Your task to perform on an android device: Search for seafood restaurants on Google Maps Image 0: 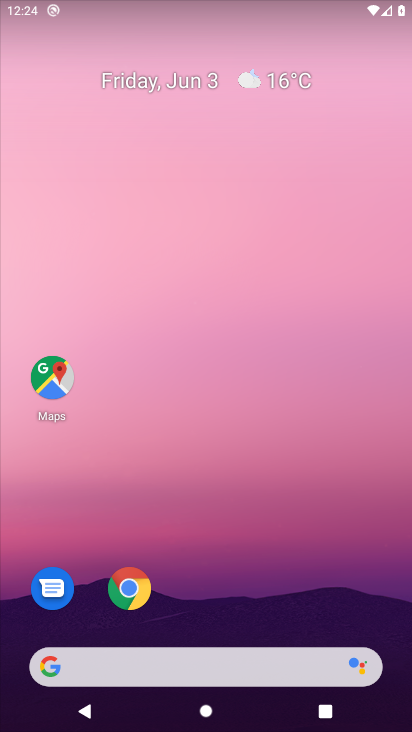
Step 0: drag from (190, 629) to (369, 181)
Your task to perform on an android device: Search for seafood restaurants on Google Maps Image 1: 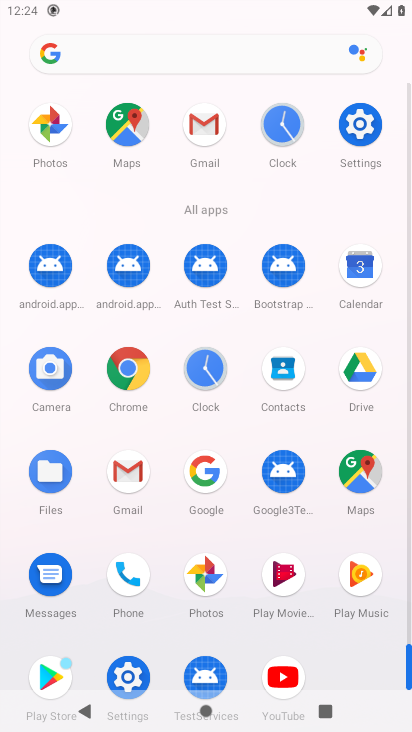
Step 1: click (354, 463)
Your task to perform on an android device: Search for seafood restaurants on Google Maps Image 2: 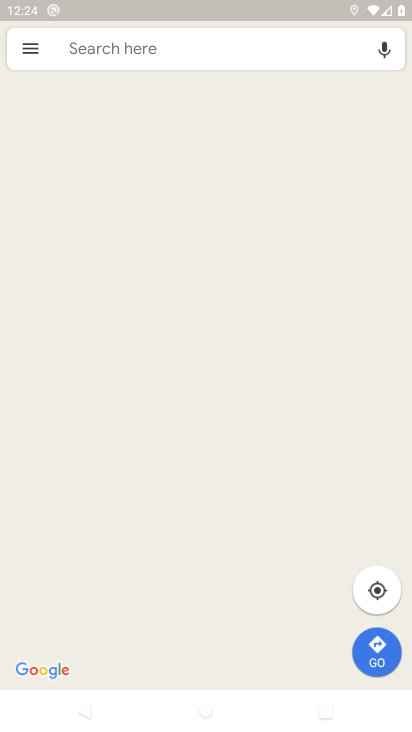
Step 2: click (130, 54)
Your task to perform on an android device: Search for seafood restaurants on Google Maps Image 3: 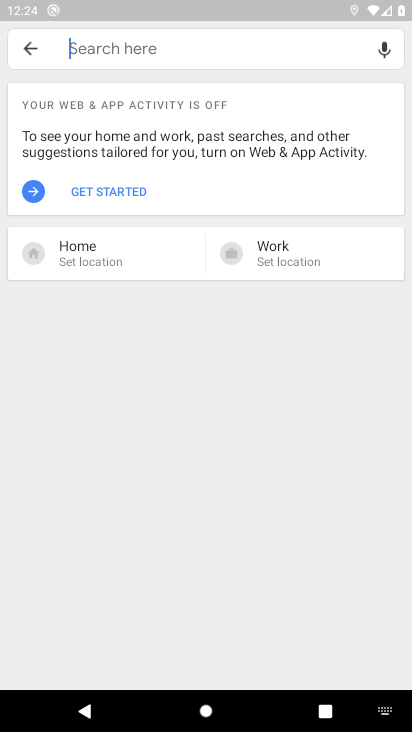
Step 3: click (35, 49)
Your task to perform on an android device: Search for seafood restaurants on Google Maps Image 4: 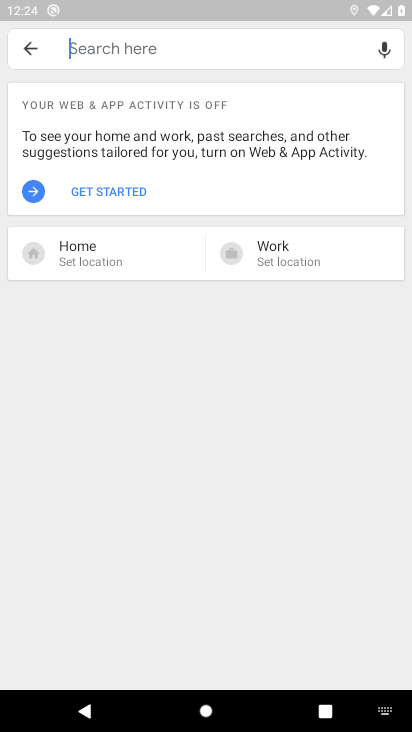
Step 4: click (188, 45)
Your task to perform on an android device: Search for seafood restaurants on Google Maps Image 5: 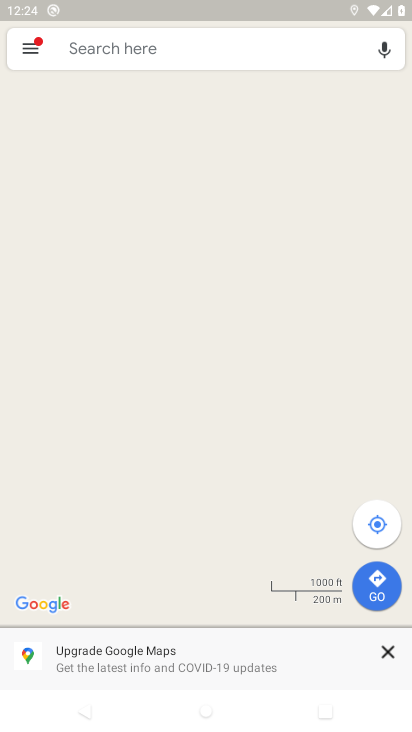
Step 5: click (118, 47)
Your task to perform on an android device: Search for seafood restaurants on Google Maps Image 6: 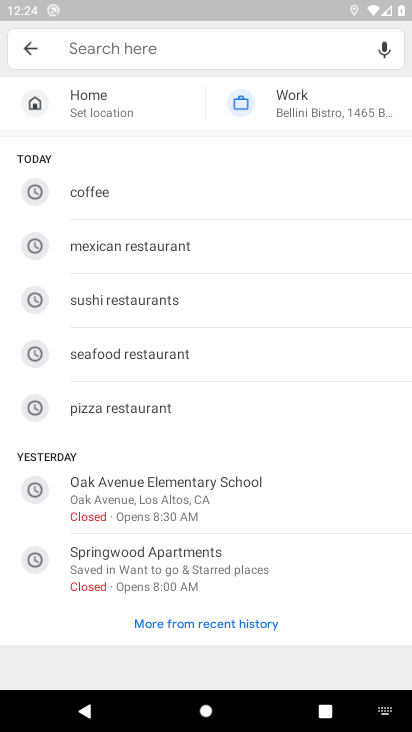
Step 6: click (166, 337)
Your task to perform on an android device: Search for seafood restaurants on Google Maps Image 7: 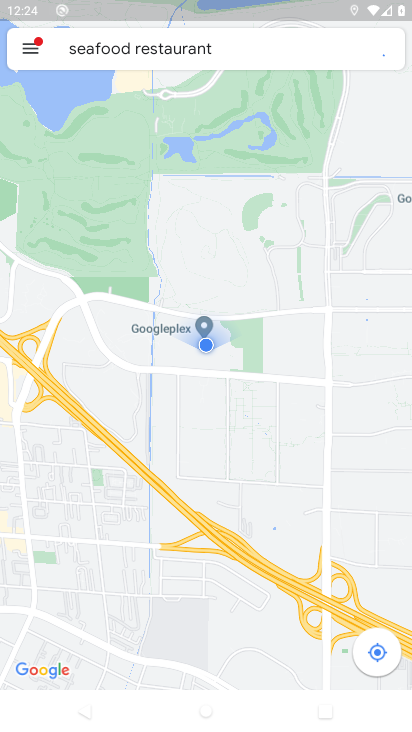
Step 7: click (303, 48)
Your task to perform on an android device: Search for seafood restaurants on Google Maps Image 8: 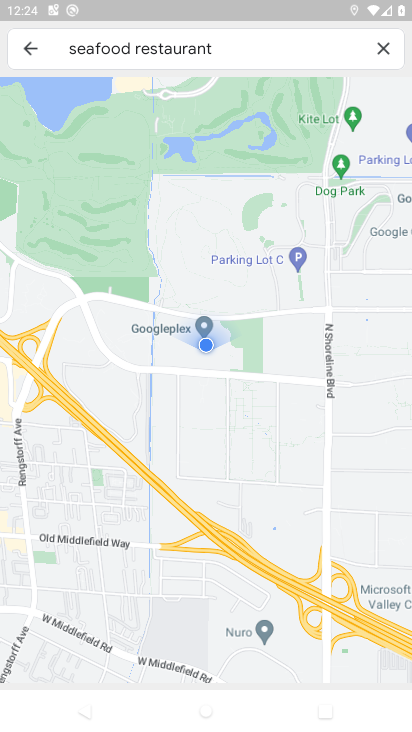
Step 8: task complete